Your task to perform on an android device: check the backup settings in the google photos Image 0: 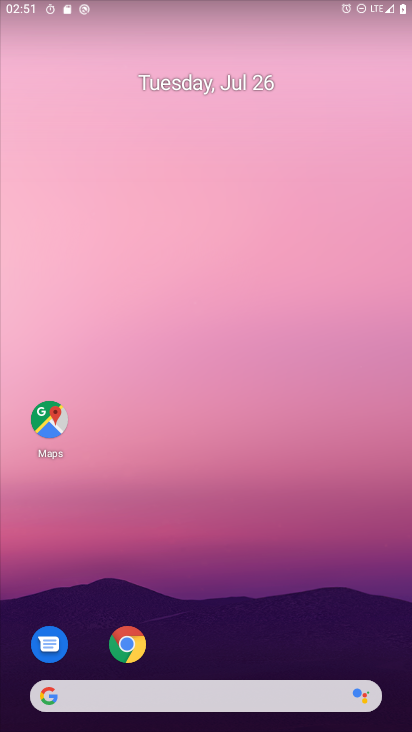
Step 0: drag from (239, 658) to (239, 2)
Your task to perform on an android device: check the backup settings in the google photos Image 1: 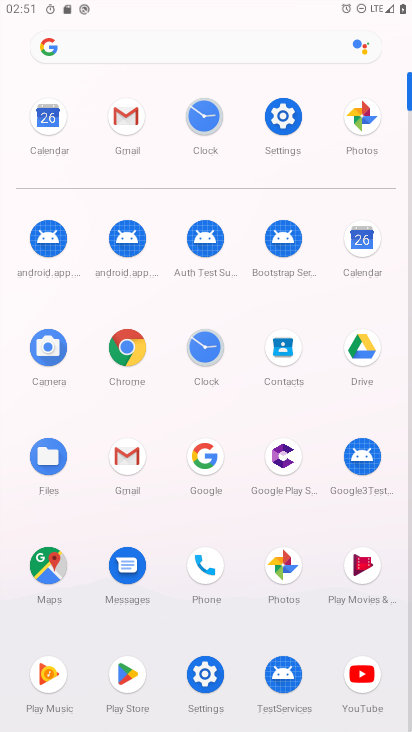
Step 1: click (285, 568)
Your task to perform on an android device: check the backup settings in the google photos Image 2: 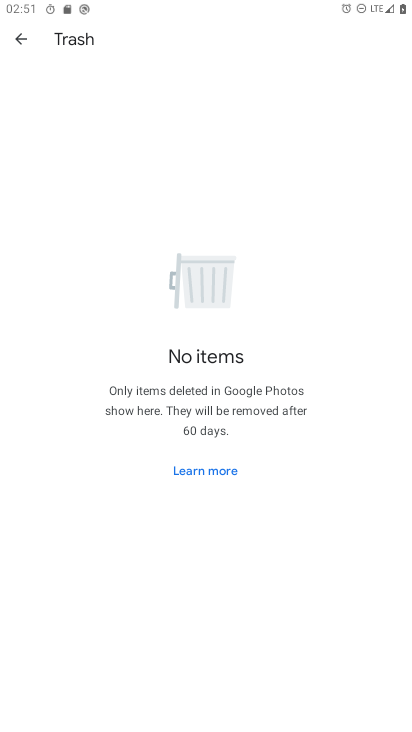
Step 2: click (23, 36)
Your task to perform on an android device: check the backup settings in the google photos Image 3: 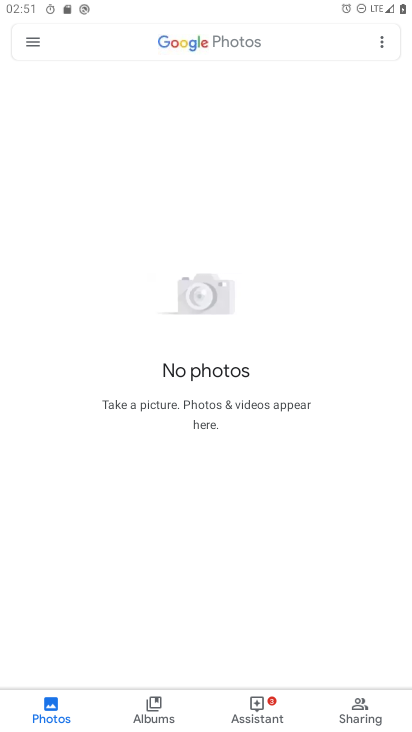
Step 3: click (48, 55)
Your task to perform on an android device: check the backup settings in the google photos Image 4: 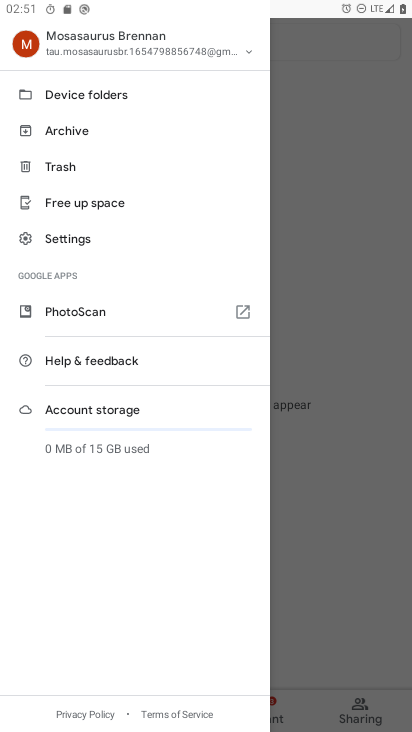
Step 4: click (78, 248)
Your task to perform on an android device: check the backup settings in the google photos Image 5: 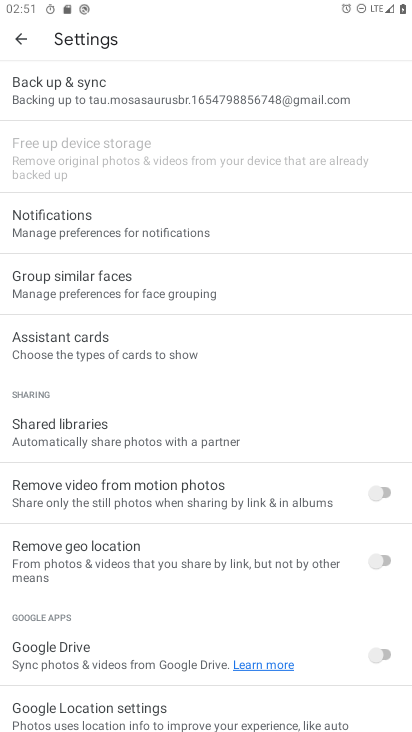
Step 5: click (64, 104)
Your task to perform on an android device: check the backup settings in the google photos Image 6: 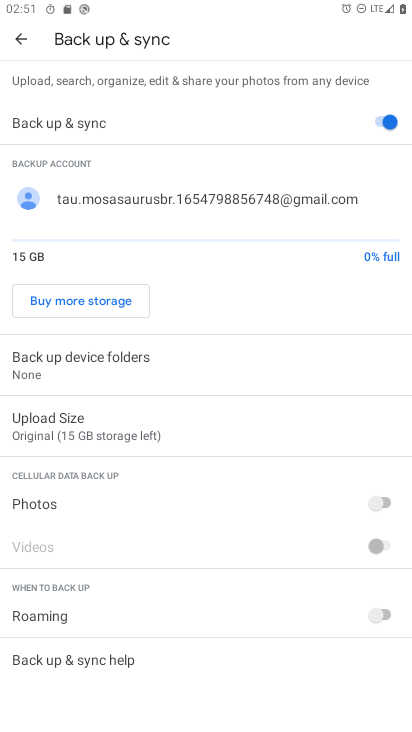
Step 6: task complete